Your task to perform on an android device: open sync settings in chrome Image 0: 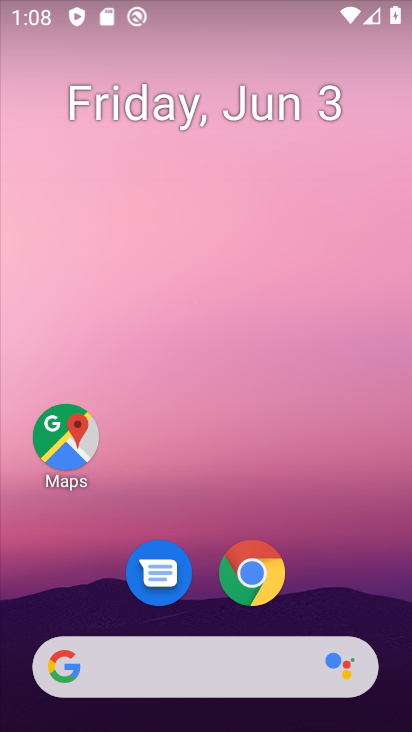
Step 0: task complete